Your task to perform on an android device: open a bookmark in the chrome app Image 0: 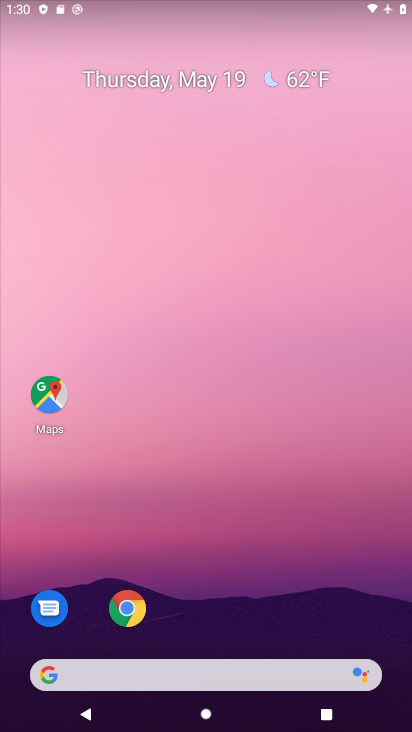
Step 0: click (132, 626)
Your task to perform on an android device: open a bookmark in the chrome app Image 1: 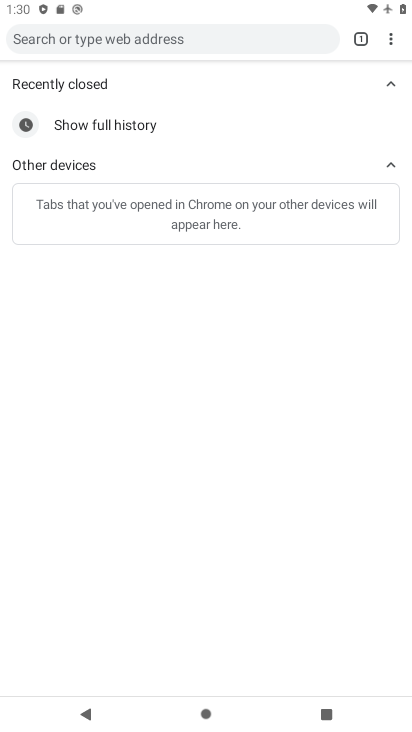
Step 1: click (384, 49)
Your task to perform on an android device: open a bookmark in the chrome app Image 2: 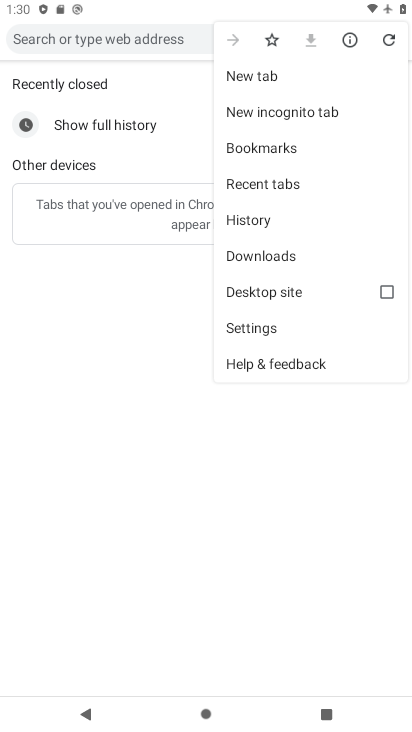
Step 2: click (299, 141)
Your task to perform on an android device: open a bookmark in the chrome app Image 3: 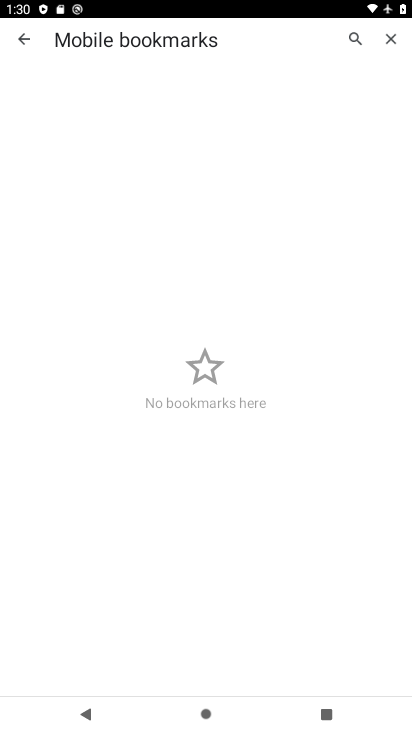
Step 3: task complete